Your task to perform on an android device: Open settings Image 0: 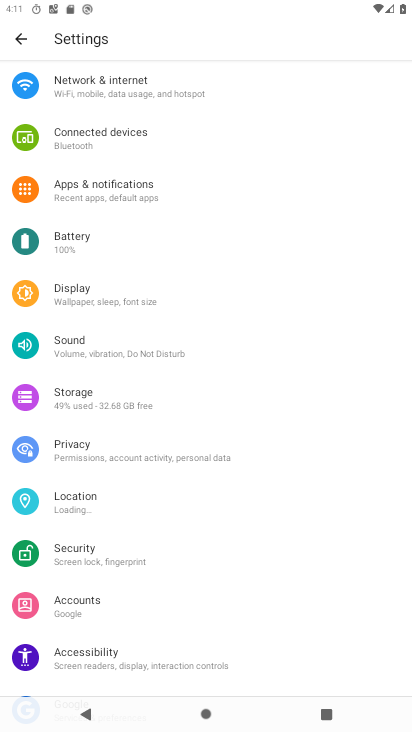
Step 0: press home button
Your task to perform on an android device: Open settings Image 1: 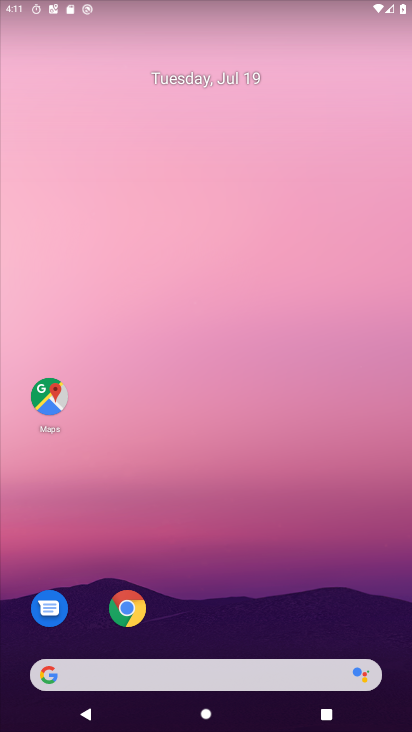
Step 1: drag from (200, 678) to (175, 117)
Your task to perform on an android device: Open settings Image 2: 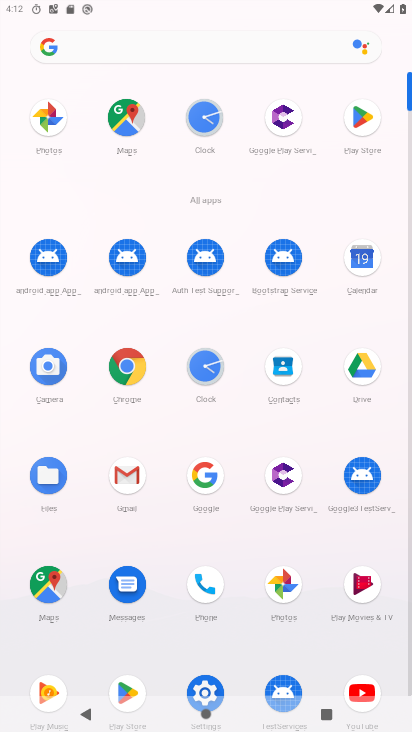
Step 2: click (205, 693)
Your task to perform on an android device: Open settings Image 3: 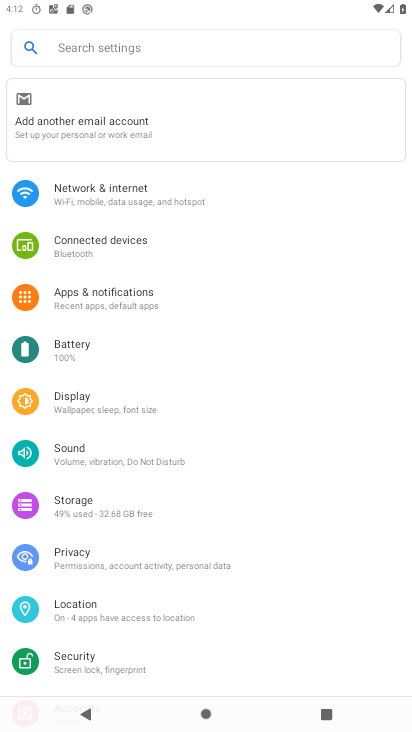
Step 3: task complete